Your task to perform on an android device: Search for a 4k TV on Best Buy Image 0: 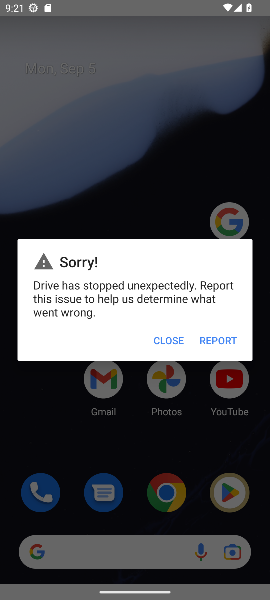
Step 0: click (162, 335)
Your task to perform on an android device: Search for a 4k TV on Best Buy Image 1: 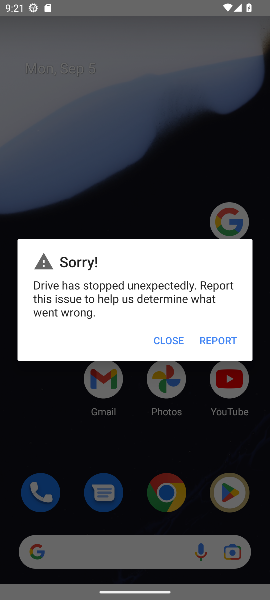
Step 1: click (233, 221)
Your task to perform on an android device: Search for a 4k TV on Best Buy Image 2: 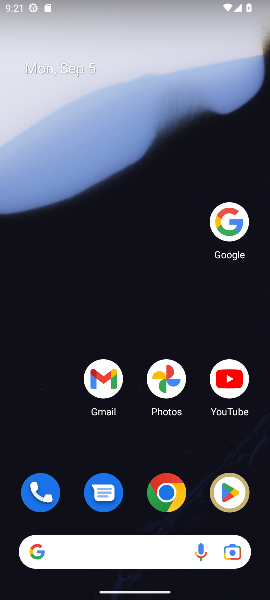
Step 2: click (233, 221)
Your task to perform on an android device: Search for a 4k TV on Best Buy Image 3: 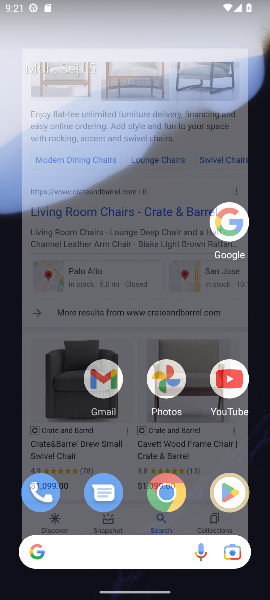
Step 3: click (233, 221)
Your task to perform on an android device: Search for a 4k TV on Best Buy Image 4: 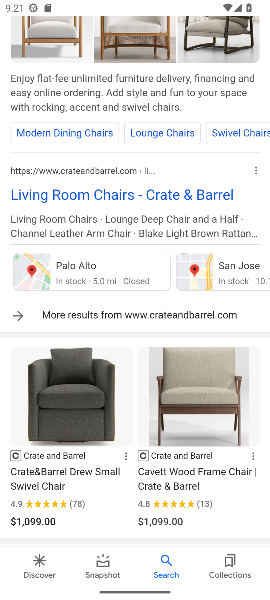
Step 4: drag from (113, 105) to (75, 508)
Your task to perform on an android device: Search for a 4k TV on Best Buy Image 5: 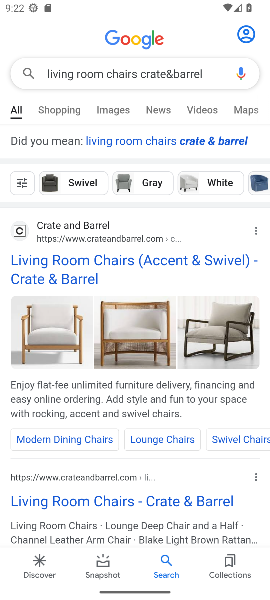
Step 5: drag from (117, 70) to (113, 394)
Your task to perform on an android device: Search for a 4k TV on Best Buy Image 6: 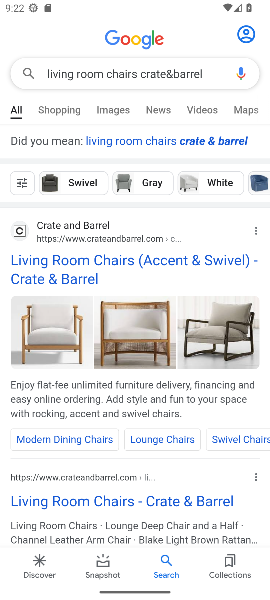
Step 6: click (102, 71)
Your task to perform on an android device: Search for a 4k TV on Best Buy Image 7: 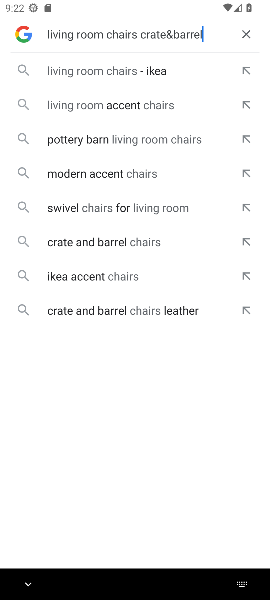
Step 7: click (245, 33)
Your task to perform on an android device: Search for a 4k TV on Best Buy Image 8: 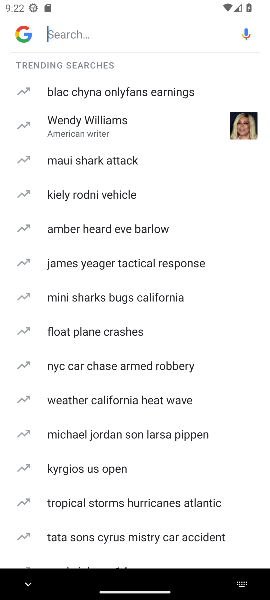
Step 8: click (102, 22)
Your task to perform on an android device: Search for a 4k TV on Best Buy Image 9: 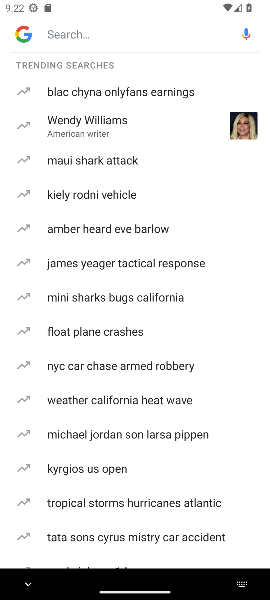
Step 9: type " 4k TV on Best Buy "
Your task to perform on an android device: Search for a 4k TV on Best Buy Image 10: 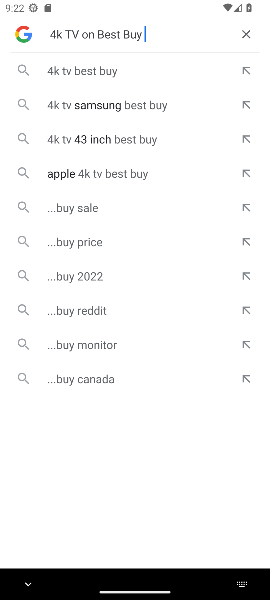
Step 10: click (86, 65)
Your task to perform on an android device: Search for a 4k TV on Best Buy Image 11: 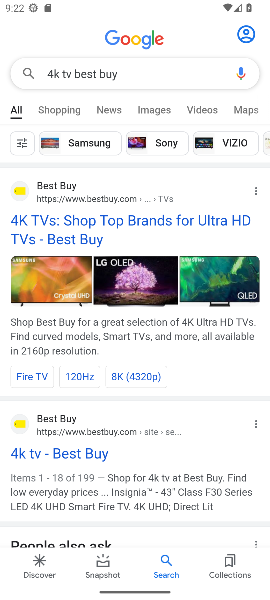
Step 11: click (108, 216)
Your task to perform on an android device: Search for a 4k TV on Best Buy Image 12: 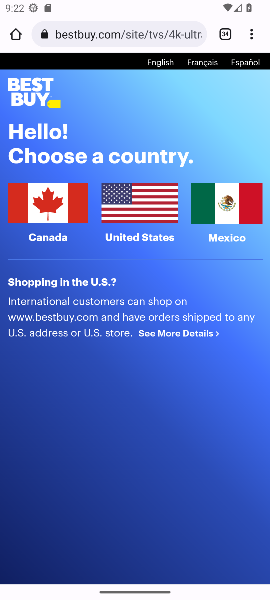
Step 12: click (156, 204)
Your task to perform on an android device: Search for a 4k TV on Best Buy Image 13: 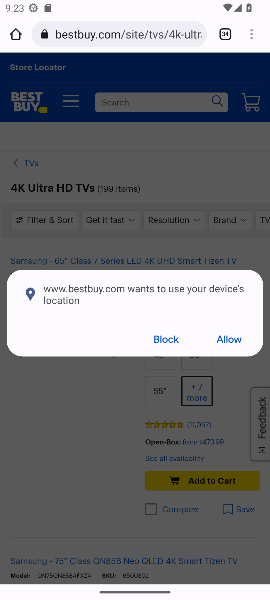
Step 13: click (239, 331)
Your task to perform on an android device: Search for a 4k TV on Best Buy Image 14: 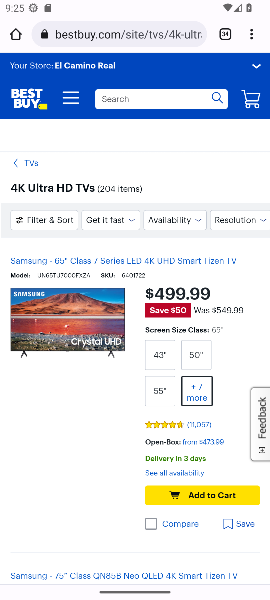
Step 14: task complete